Your task to perform on an android device: turn on the 24-hour format for clock Image 0: 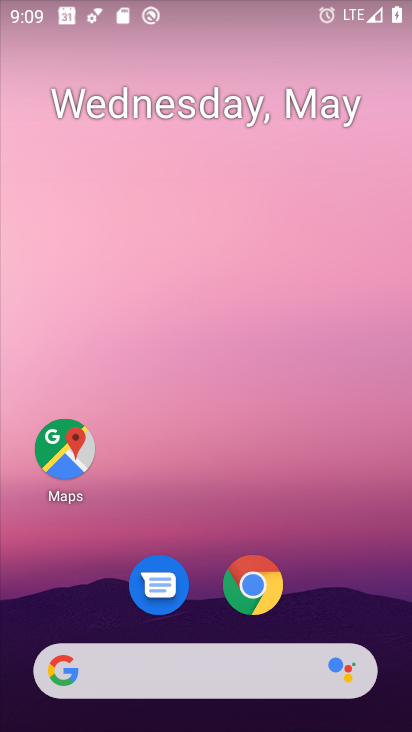
Step 0: drag from (301, 411) to (323, 59)
Your task to perform on an android device: turn on the 24-hour format for clock Image 1: 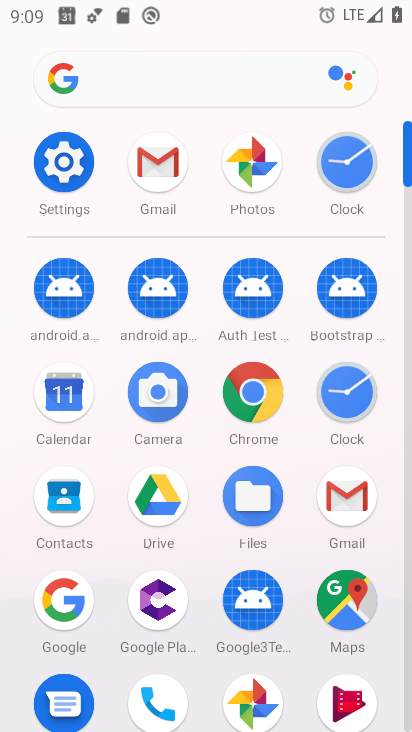
Step 1: click (331, 169)
Your task to perform on an android device: turn on the 24-hour format for clock Image 2: 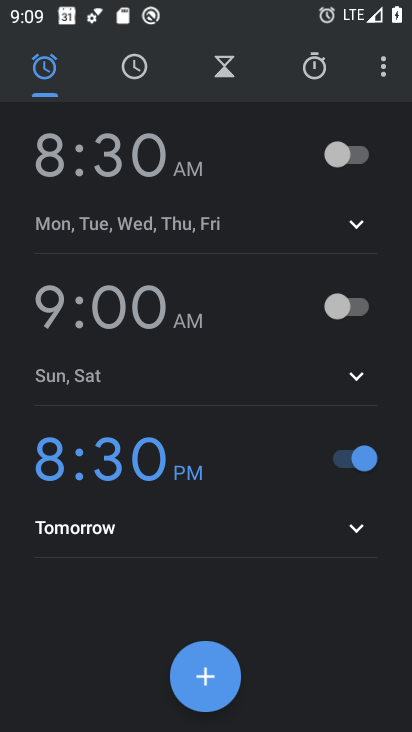
Step 2: click (376, 72)
Your task to perform on an android device: turn on the 24-hour format for clock Image 3: 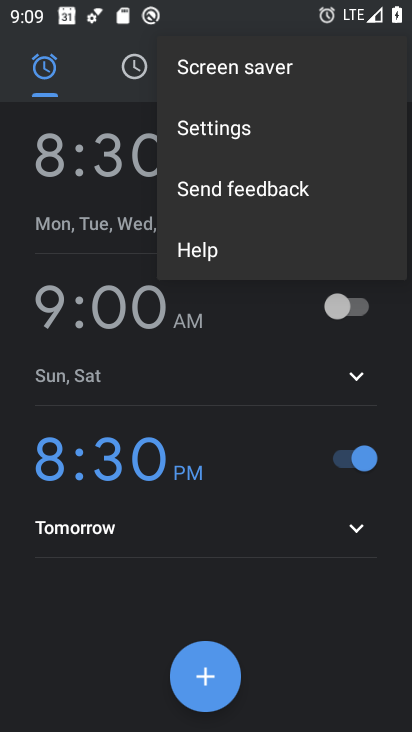
Step 3: click (283, 127)
Your task to perform on an android device: turn on the 24-hour format for clock Image 4: 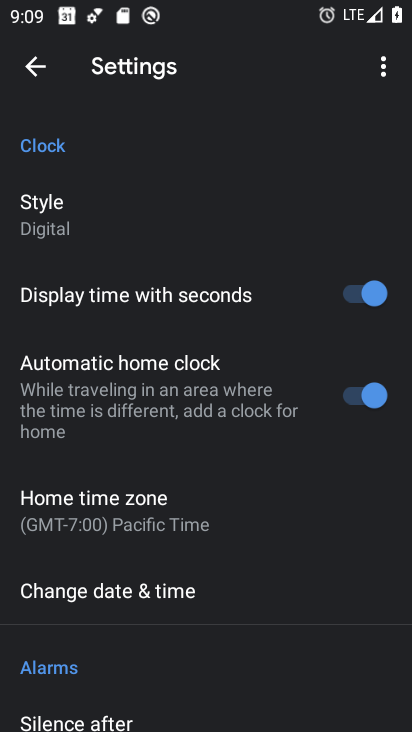
Step 4: drag from (283, 588) to (278, 125)
Your task to perform on an android device: turn on the 24-hour format for clock Image 5: 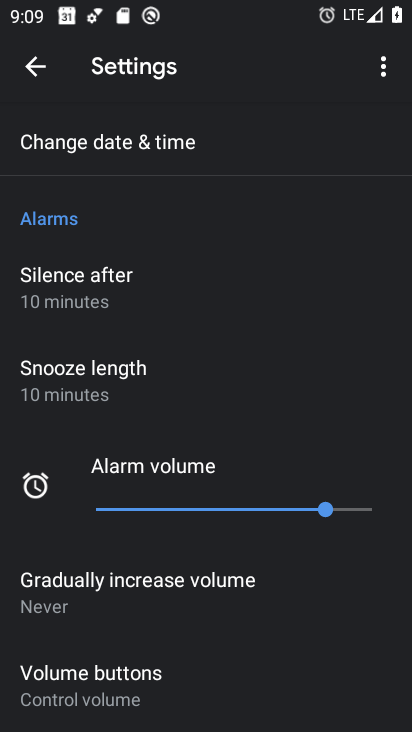
Step 5: drag from (244, 343) to (253, 53)
Your task to perform on an android device: turn on the 24-hour format for clock Image 6: 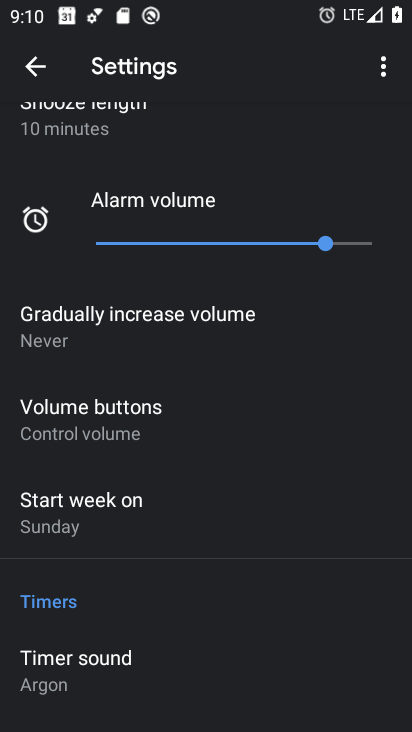
Step 6: drag from (241, 379) to (269, 690)
Your task to perform on an android device: turn on the 24-hour format for clock Image 7: 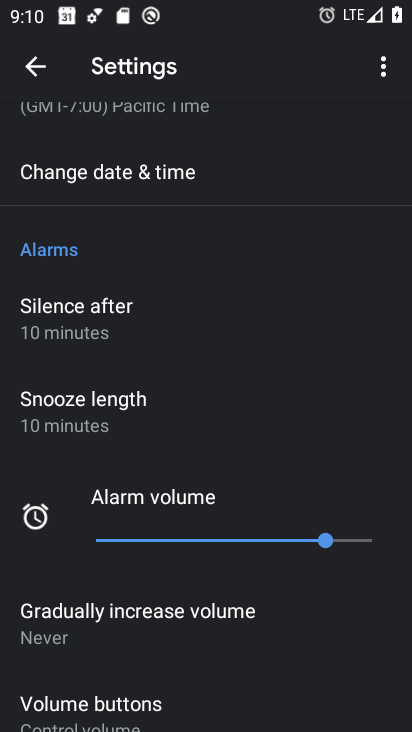
Step 7: click (221, 179)
Your task to perform on an android device: turn on the 24-hour format for clock Image 8: 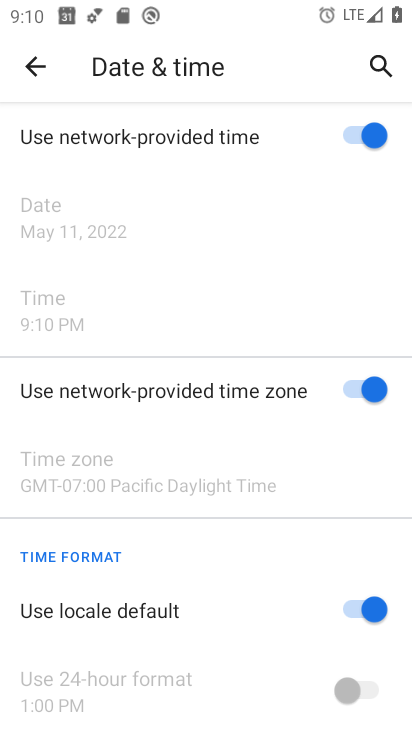
Step 8: click (362, 674)
Your task to perform on an android device: turn on the 24-hour format for clock Image 9: 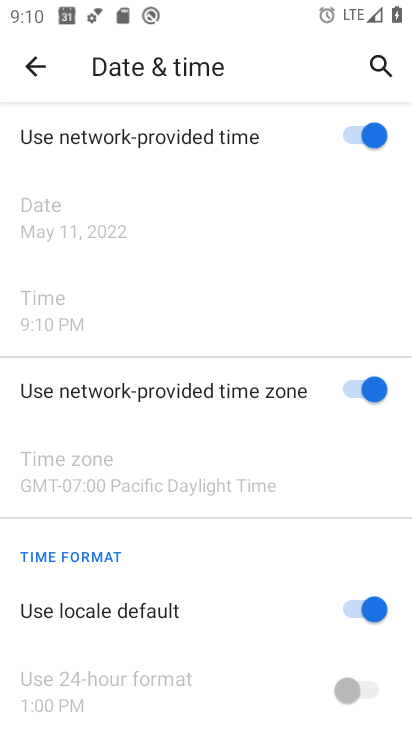
Step 9: click (342, 599)
Your task to perform on an android device: turn on the 24-hour format for clock Image 10: 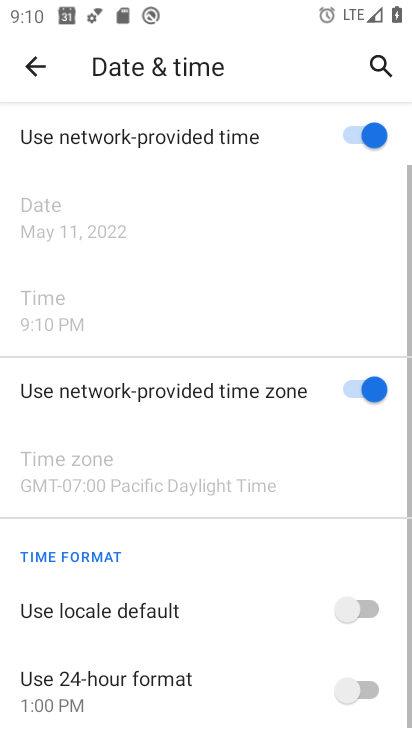
Step 10: click (372, 681)
Your task to perform on an android device: turn on the 24-hour format for clock Image 11: 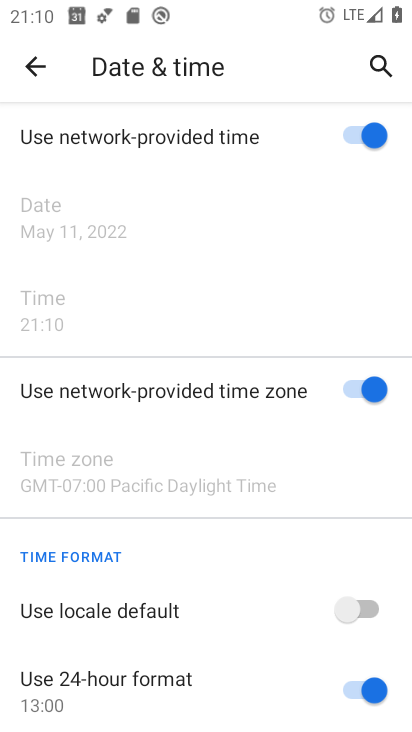
Step 11: task complete